Your task to perform on an android device: open device folders in google photos Image 0: 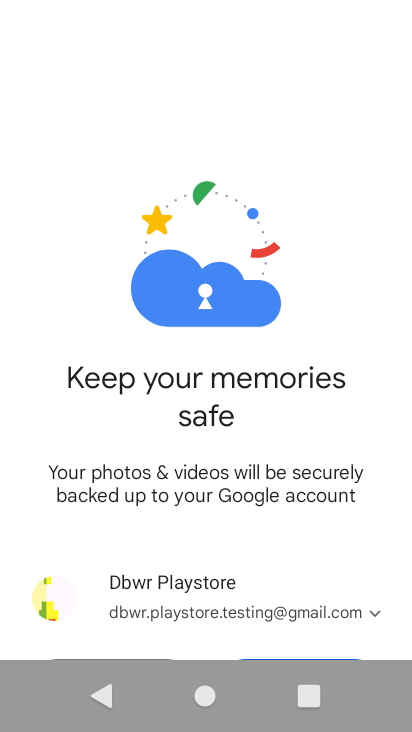
Step 0: drag from (209, 557) to (220, 115)
Your task to perform on an android device: open device folders in google photos Image 1: 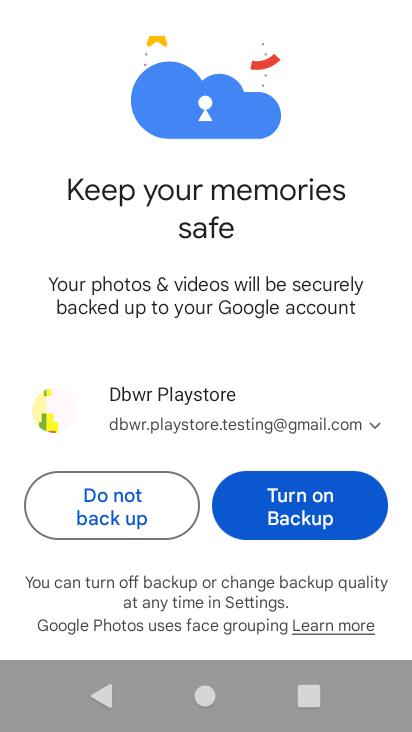
Step 1: press home button
Your task to perform on an android device: open device folders in google photos Image 2: 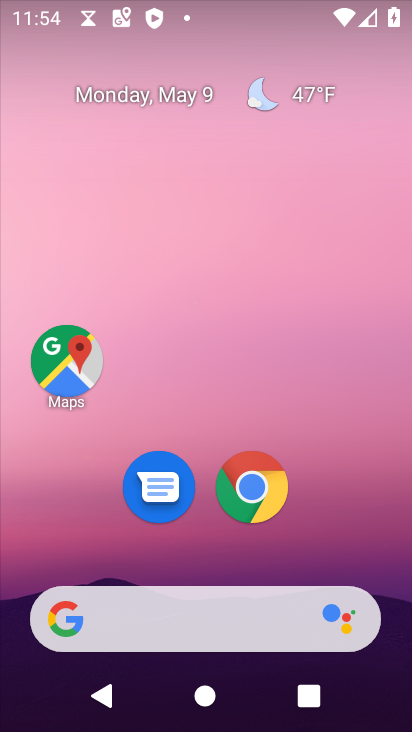
Step 2: drag from (197, 550) to (245, 96)
Your task to perform on an android device: open device folders in google photos Image 3: 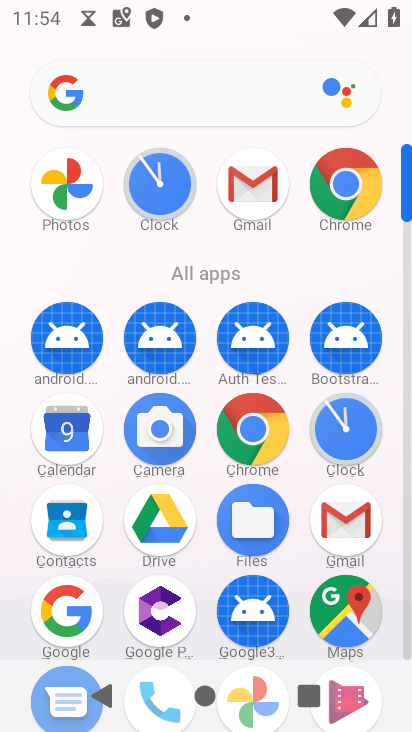
Step 3: drag from (205, 577) to (232, 163)
Your task to perform on an android device: open device folders in google photos Image 4: 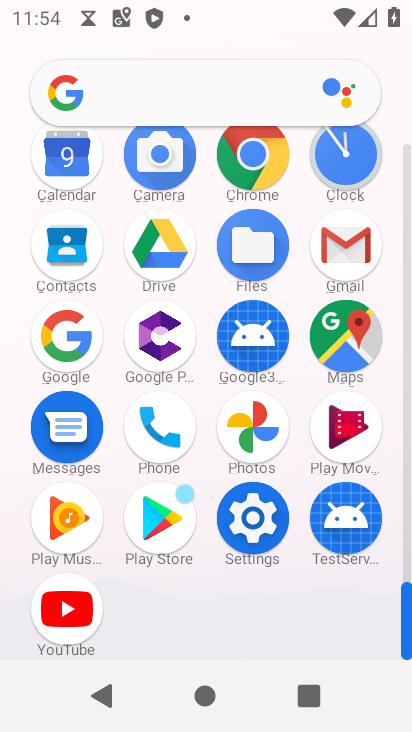
Step 4: click (249, 426)
Your task to perform on an android device: open device folders in google photos Image 5: 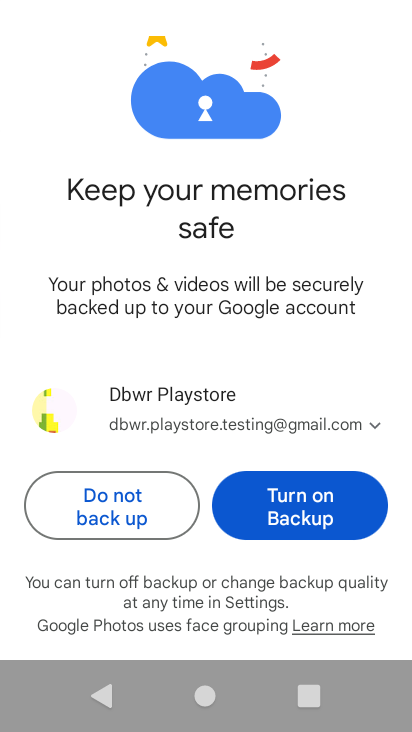
Step 5: click (301, 498)
Your task to perform on an android device: open device folders in google photos Image 6: 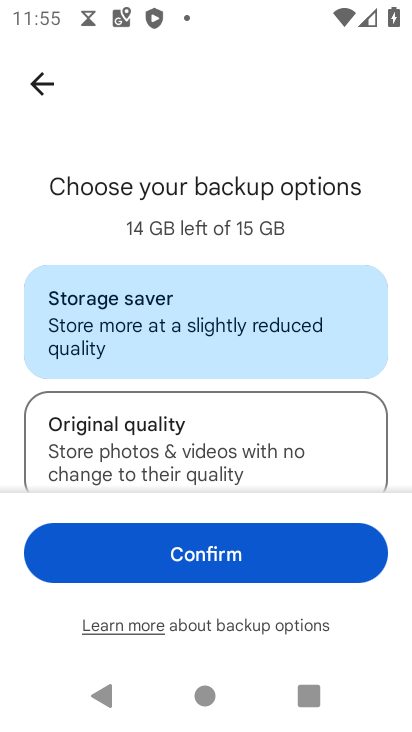
Step 6: click (200, 556)
Your task to perform on an android device: open device folders in google photos Image 7: 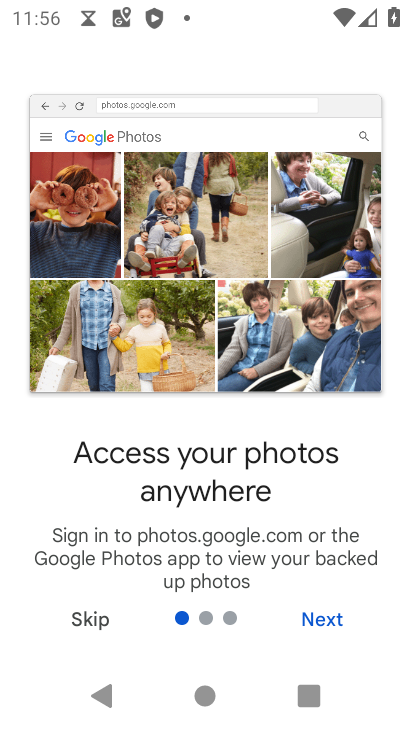
Step 7: click (323, 613)
Your task to perform on an android device: open device folders in google photos Image 8: 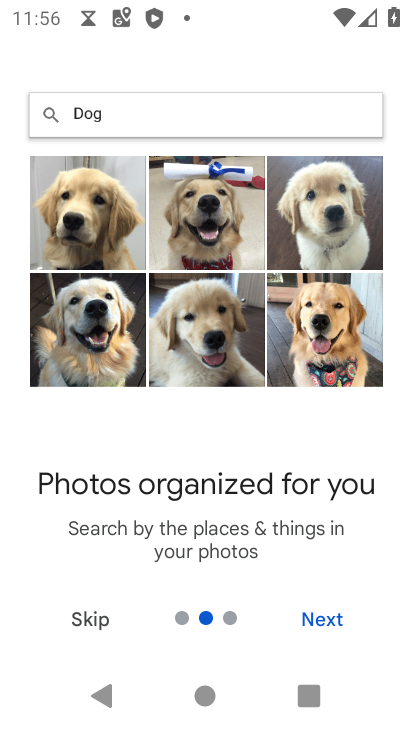
Step 8: click (323, 617)
Your task to perform on an android device: open device folders in google photos Image 9: 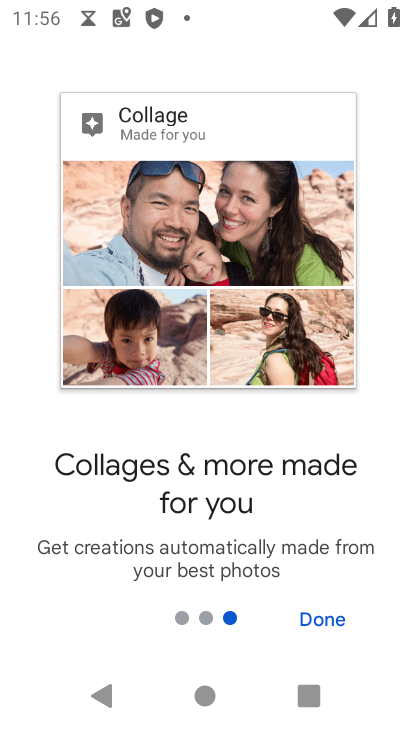
Step 9: click (328, 616)
Your task to perform on an android device: open device folders in google photos Image 10: 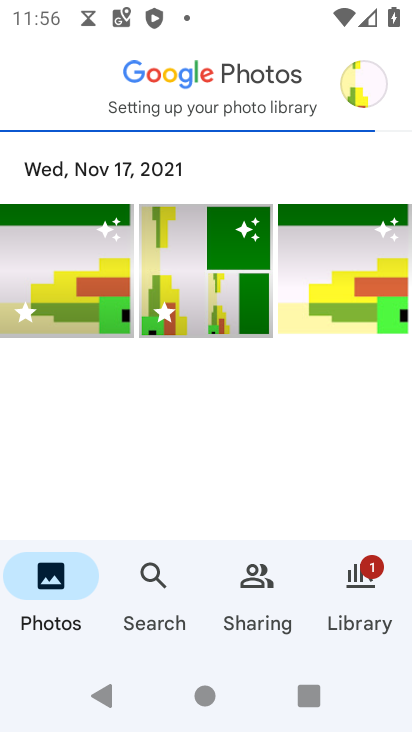
Step 10: click (144, 582)
Your task to perform on an android device: open device folders in google photos Image 11: 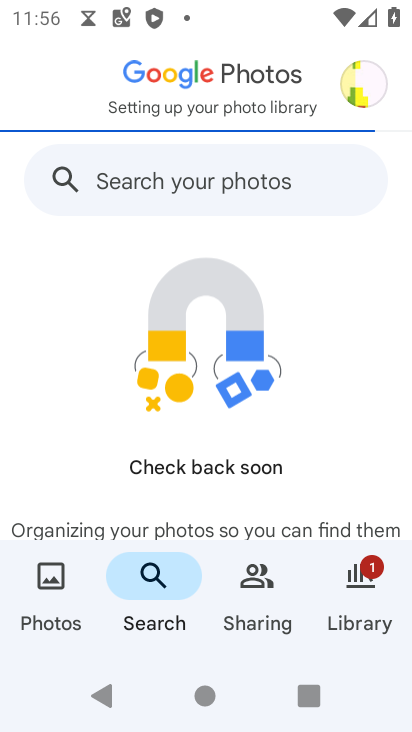
Step 11: click (146, 177)
Your task to perform on an android device: open device folders in google photos Image 12: 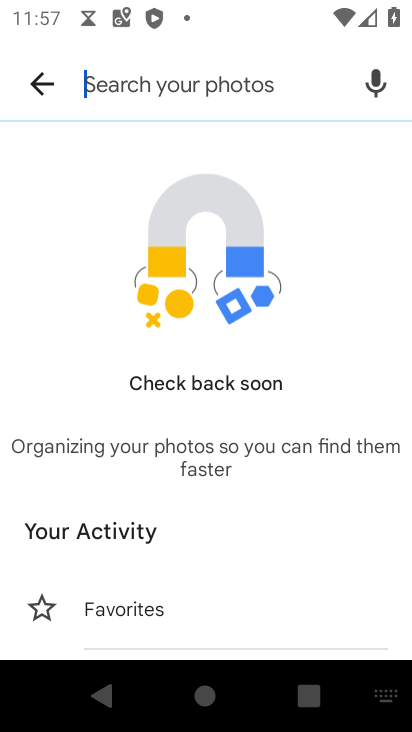
Step 12: type "device"
Your task to perform on an android device: open device folders in google photos Image 13: 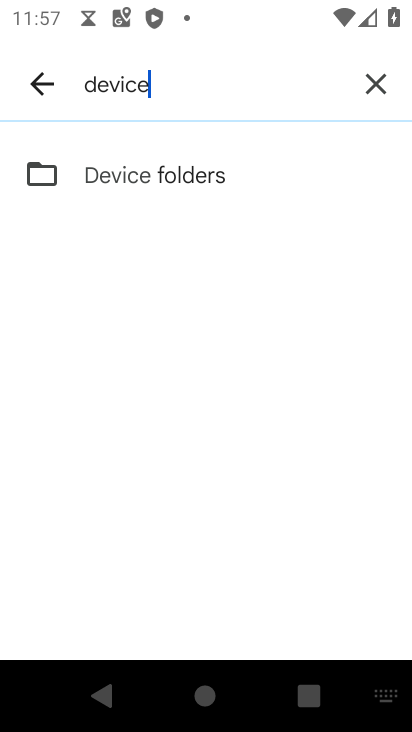
Step 13: type ""
Your task to perform on an android device: open device folders in google photos Image 14: 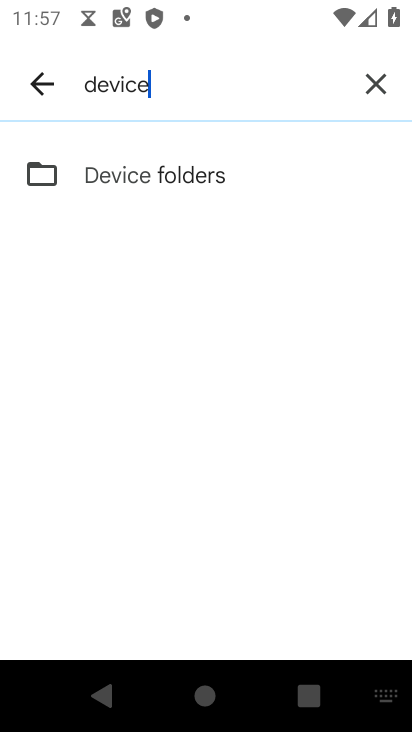
Step 14: click (67, 168)
Your task to perform on an android device: open device folders in google photos Image 15: 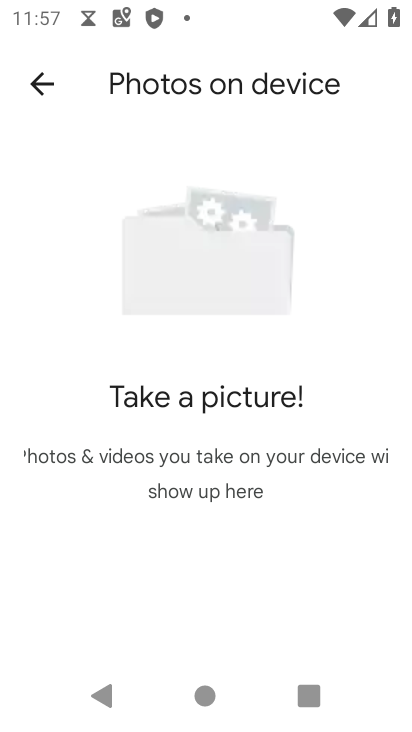
Step 15: task complete